Your task to perform on an android device: check battery use Image 0: 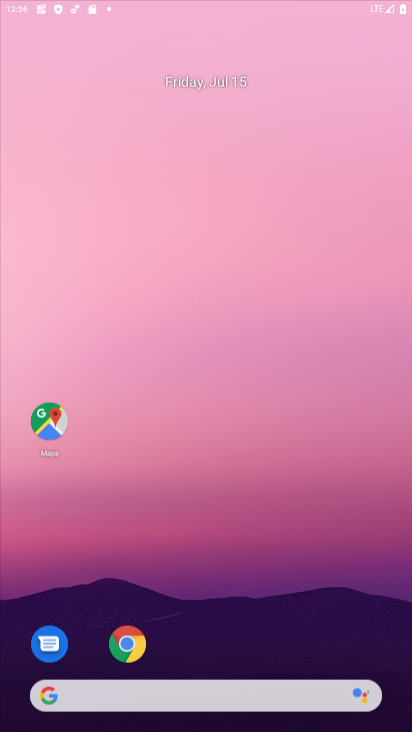
Step 0: click (141, 638)
Your task to perform on an android device: check battery use Image 1: 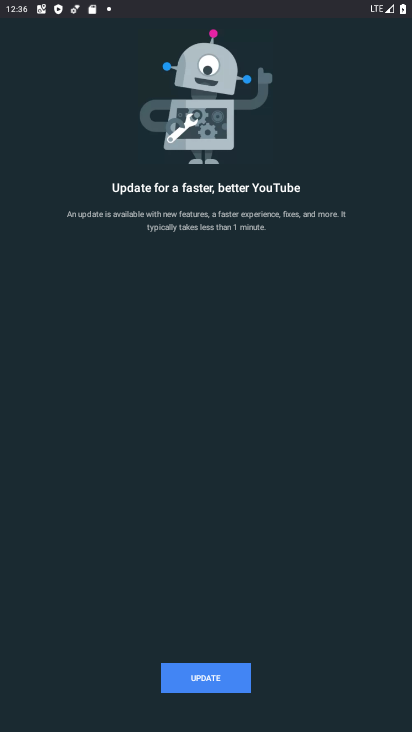
Step 1: press home button
Your task to perform on an android device: check battery use Image 2: 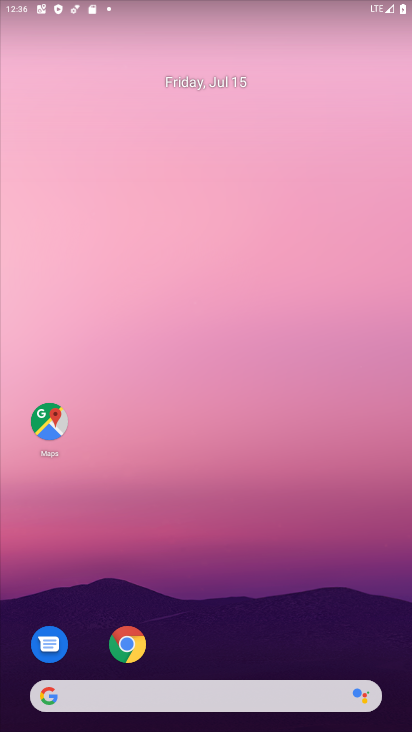
Step 2: drag from (124, 497) to (328, 129)
Your task to perform on an android device: check battery use Image 3: 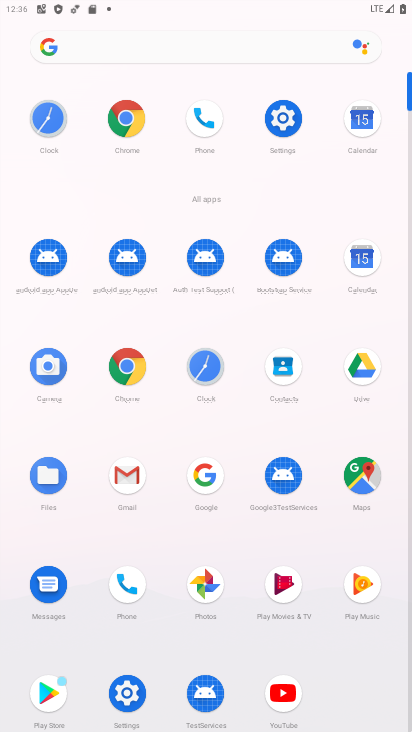
Step 3: click (296, 125)
Your task to perform on an android device: check battery use Image 4: 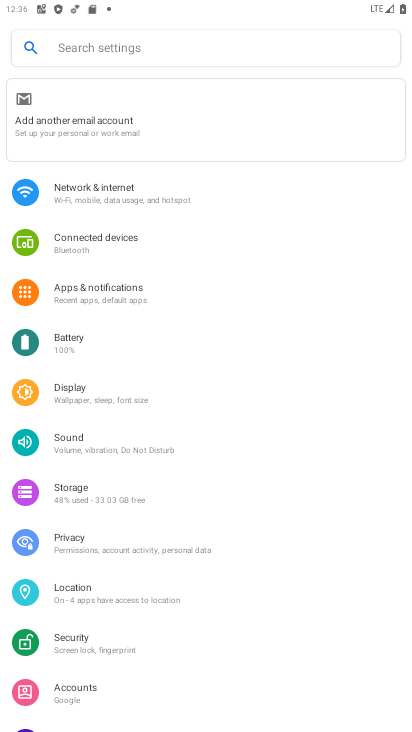
Step 4: click (93, 348)
Your task to perform on an android device: check battery use Image 5: 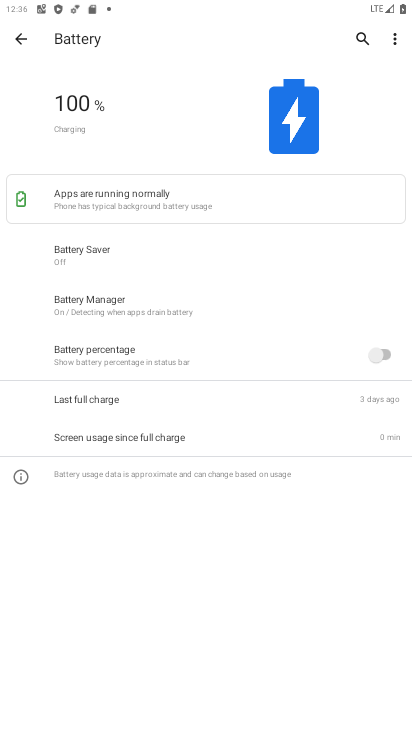
Step 5: task complete